Your task to perform on an android device: add a contact in the contacts app Image 0: 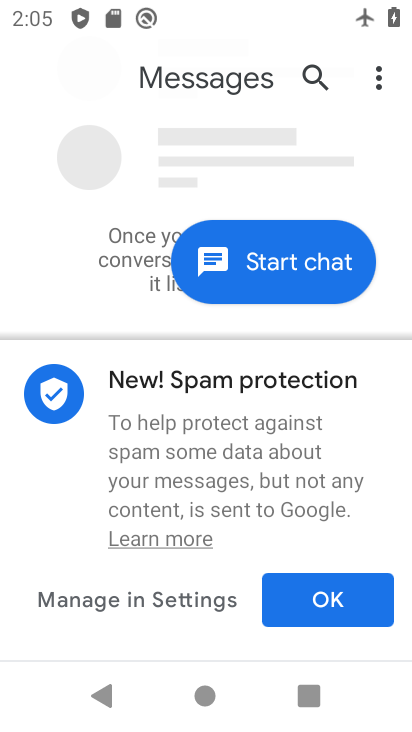
Step 0: click (310, 602)
Your task to perform on an android device: add a contact in the contacts app Image 1: 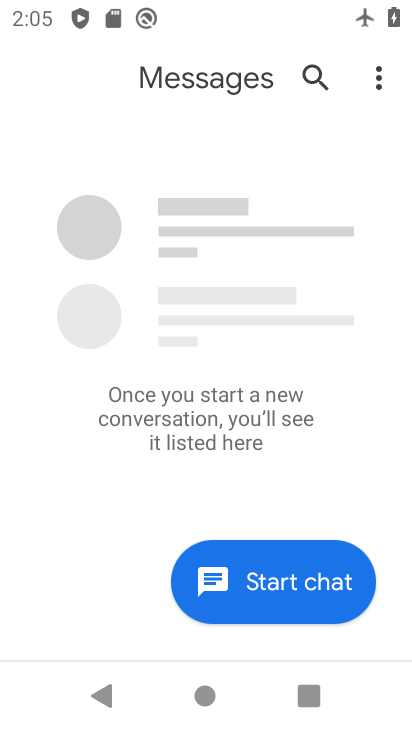
Step 1: press back button
Your task to perform on an android device: add a contact in the contacts app Image 2: 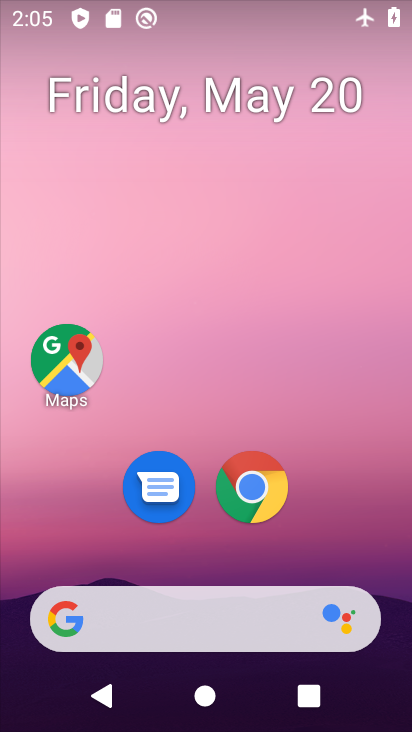
Step 2: drag from (266, 688) to (253, 93)
Your task to perform on an android device: add a contact in the contacts app Image 3: 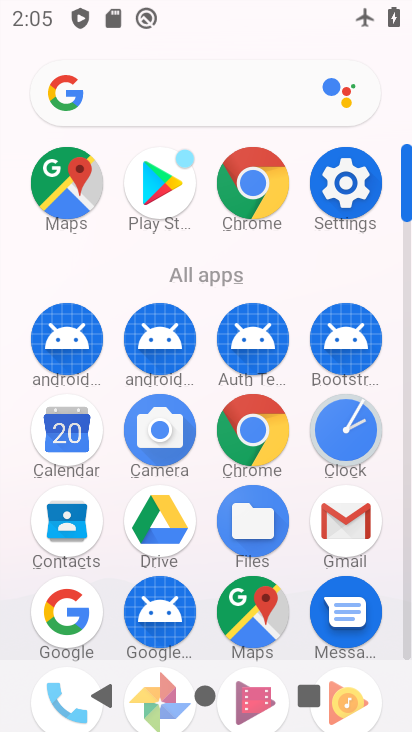
Step 3: click (62, 538)
Your task to perform on an android device: add a contact in the contacts app Image 4: 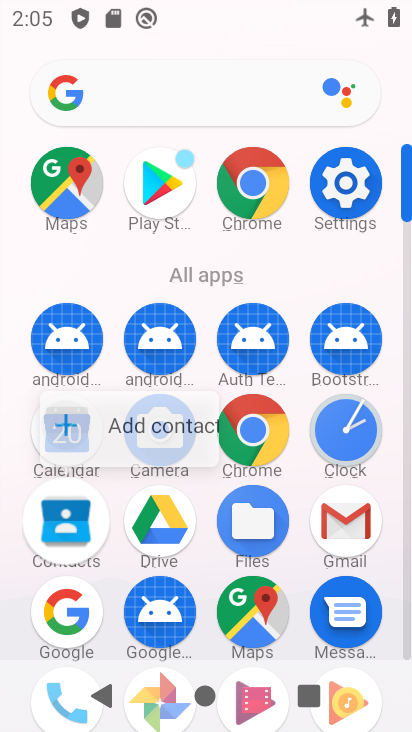
Step 4: click (94, 524)
Your task to perform on an android device: add a contact in the contacts app Image 5: 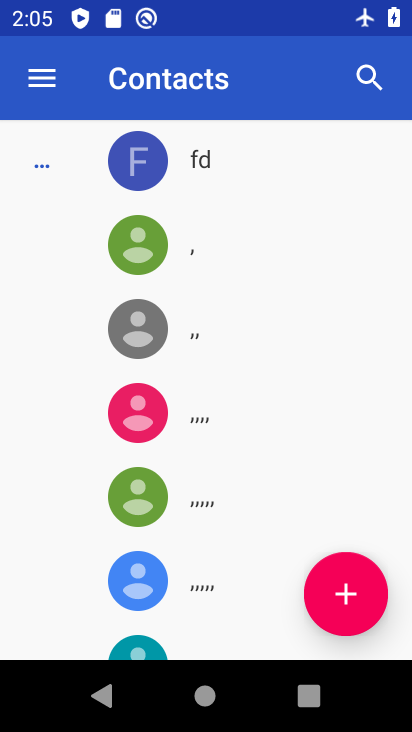
Step 5: click (343, 596)
Your task to perform on an android device: add a contact in the contacts app Image 6: 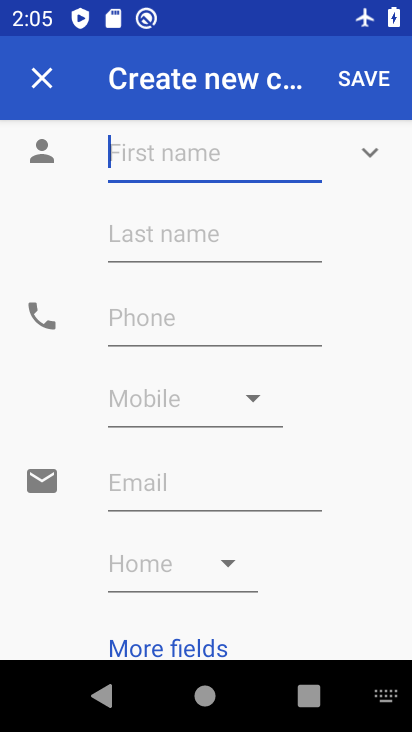
Step 6: click (127, 149)
Your task to perform on an android device: add a contact in the contacts app Image 7: 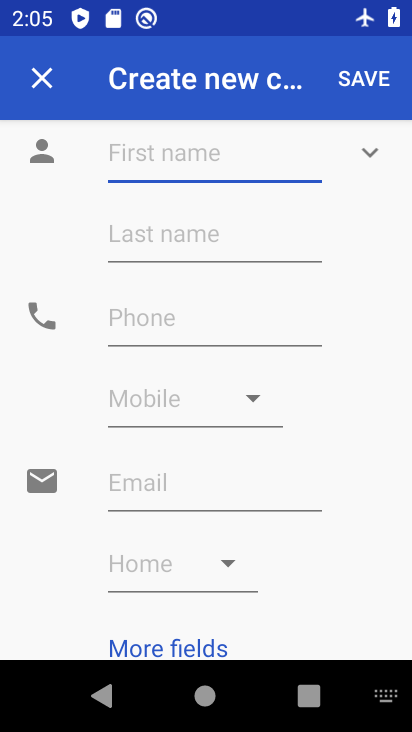
Step 7: type "jdhksjdhkjhd"
Your task to perform on an android device: add a contact in the contacts app Image 8: 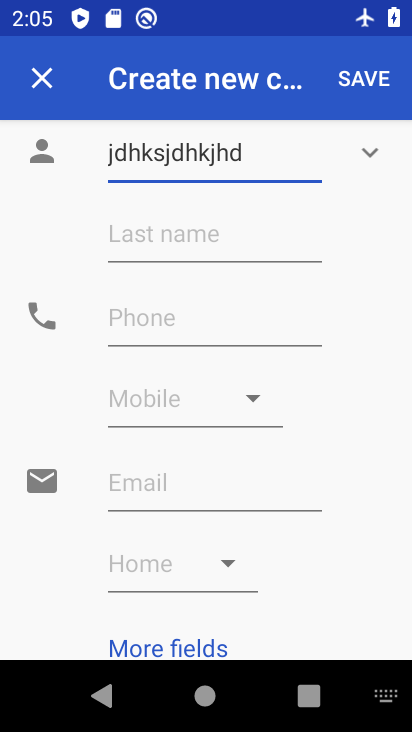
Step 8: click (116, 313)
Your task to perform on an android device: add a contact in the contacts app Image 9: 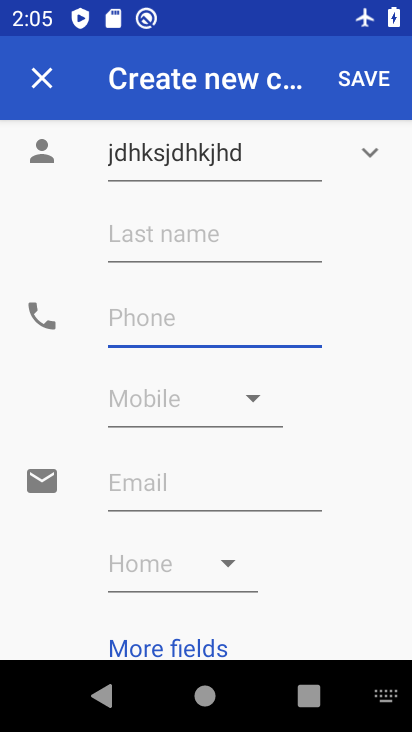
Step 9: click (121, 320)
Your task to perform on an android device: add a contact in the contacts app Image 10: 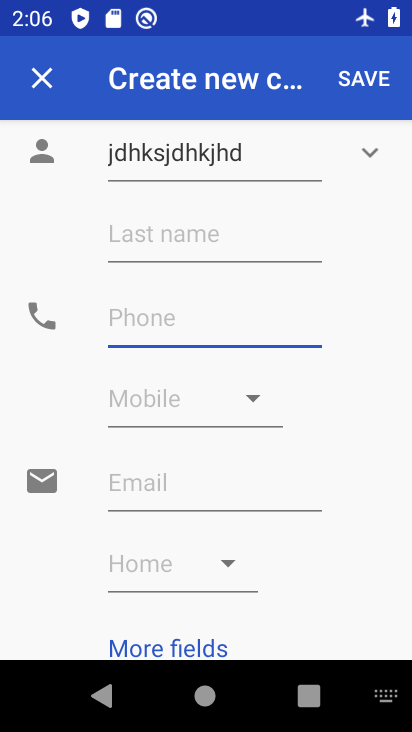
Step 10: type "78687369837498"
Your task to perform on an android device: add a contact in the contacts app Image 11: 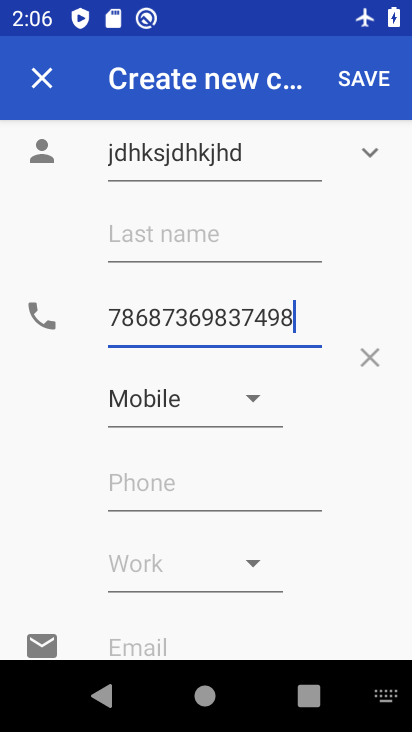
Step 11: click (361, 89)
Your task to perform on an android device: add a contact in the contacts app Image 12: 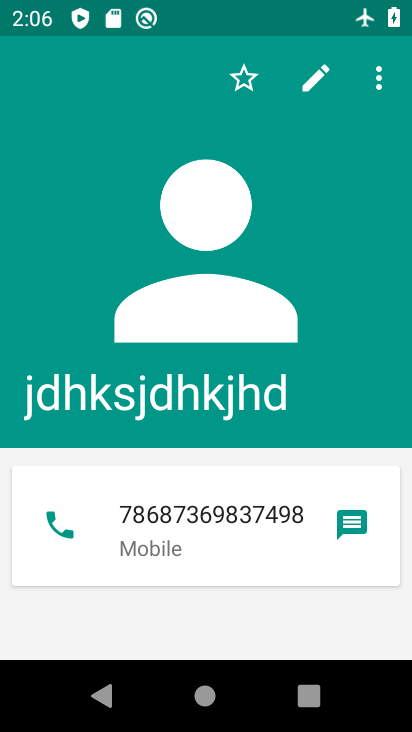
Step 12: task complete